Your task to perform on an android device: Clear the shopping cart on amazon. Image 0: 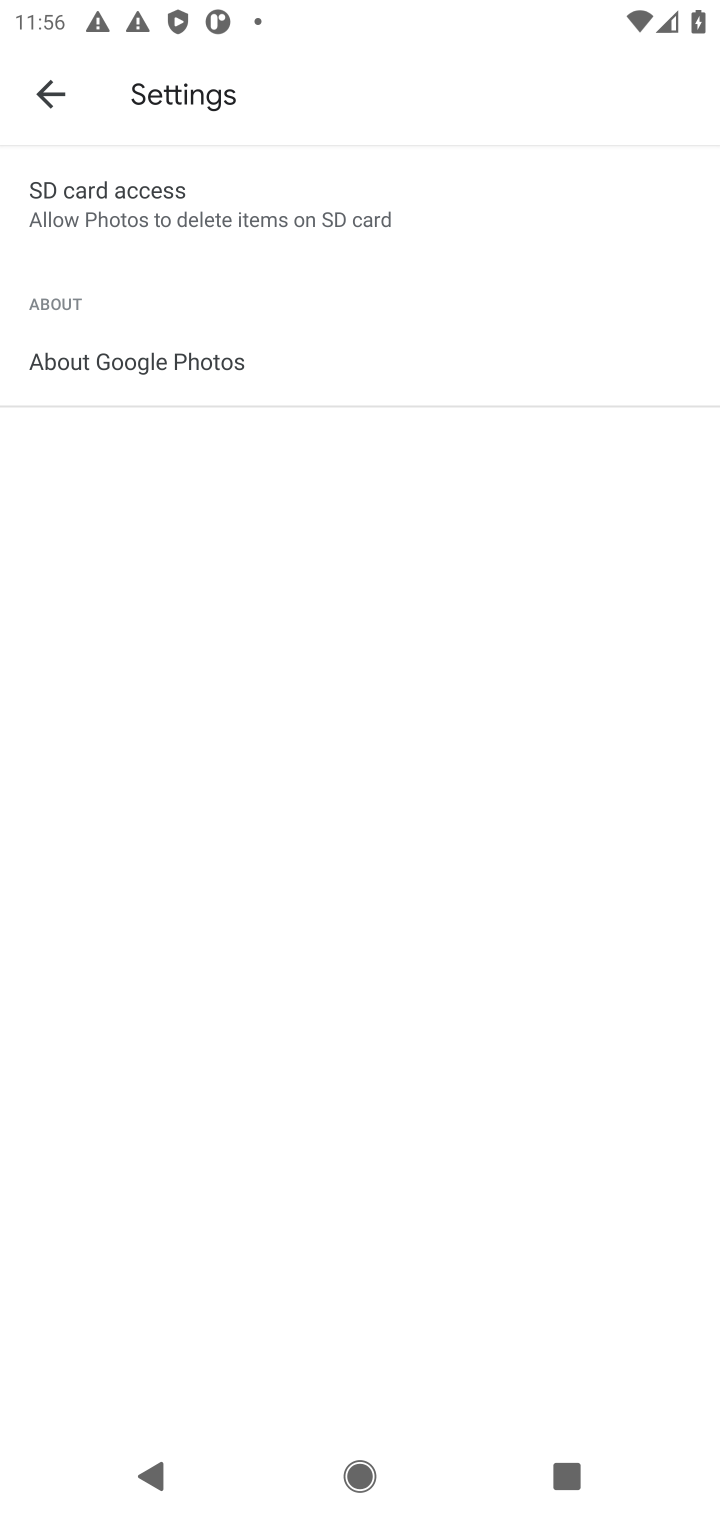
Step 0: press home button
Your task to perform on an android device: Clear the shopping cart on amazon. Image 1: 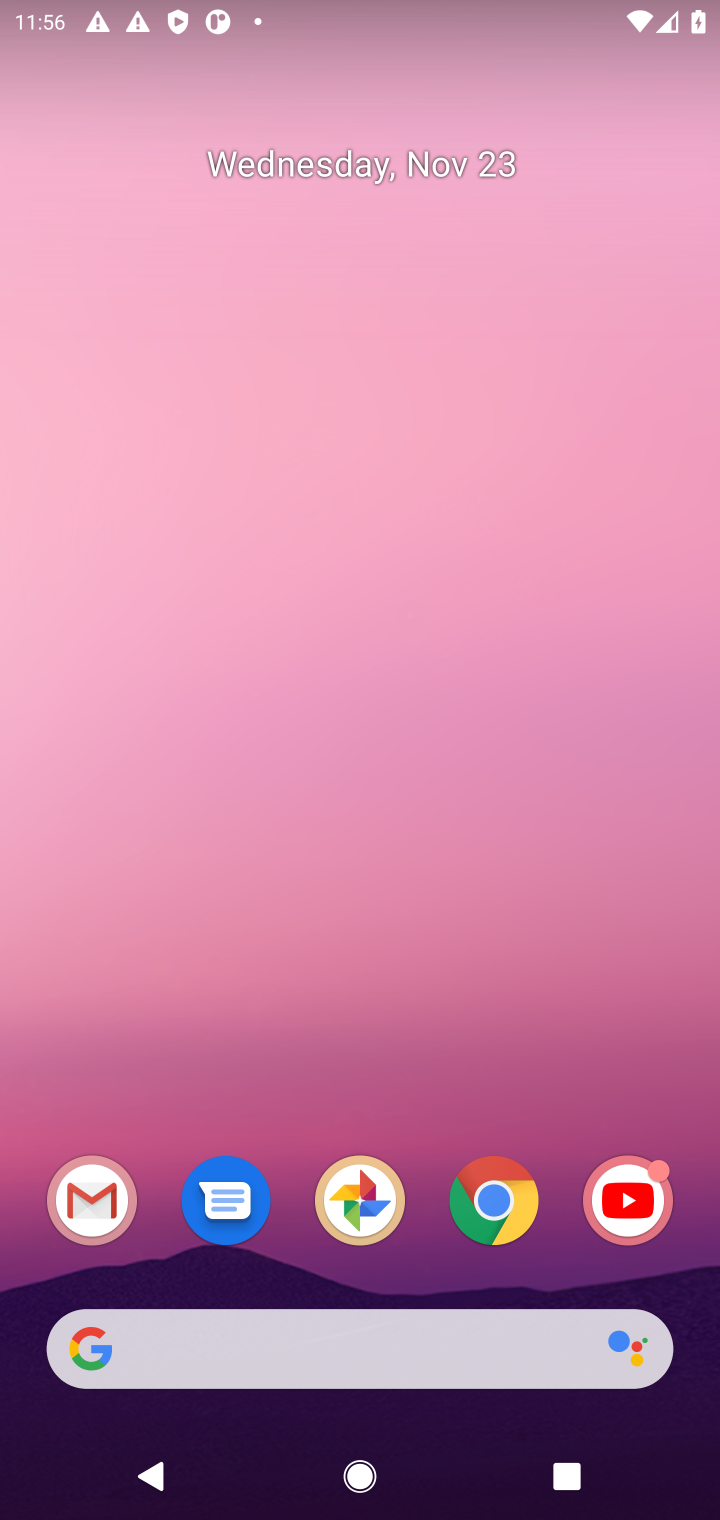
Step 1: click (210, 1365)
Your task to perform on an android device: Clear the shopping cart on amazon. Image 2: 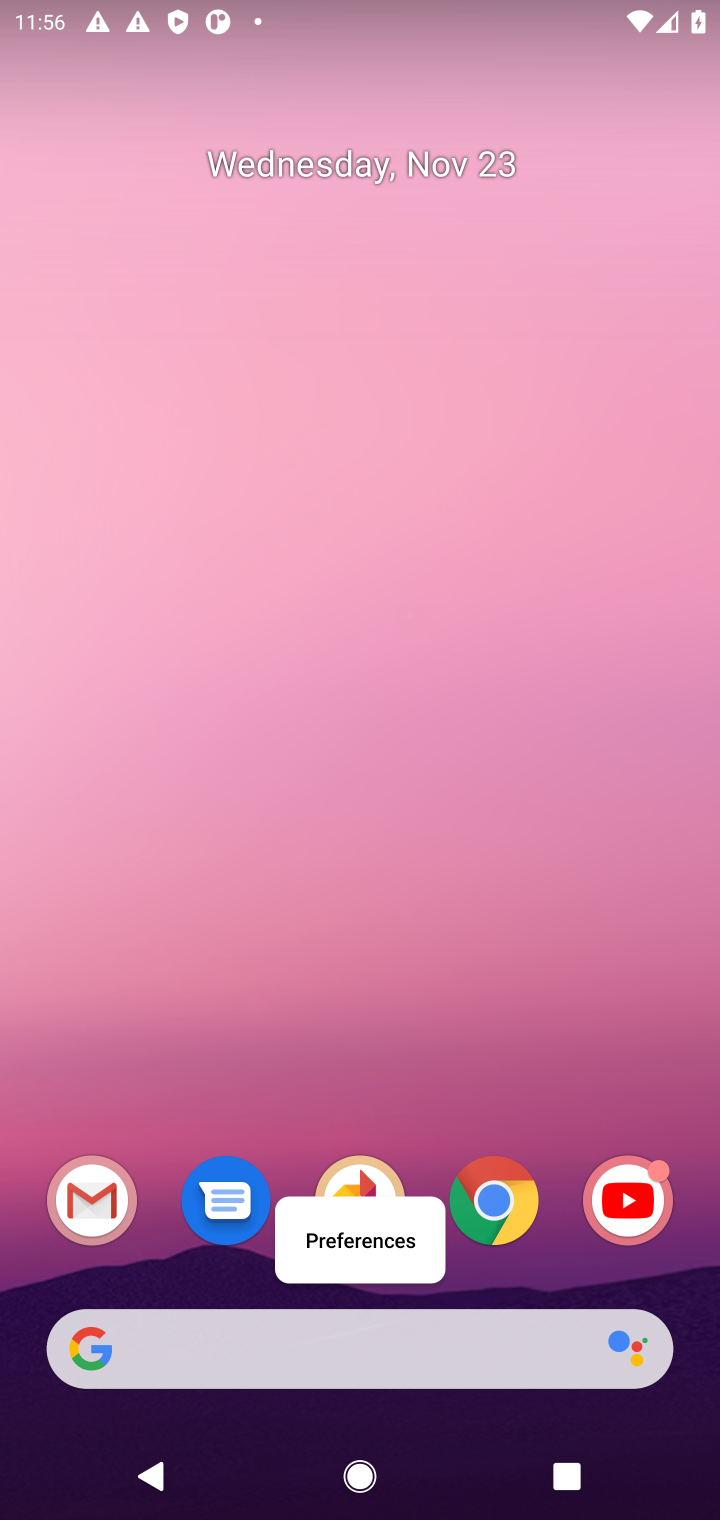
Step 2: click (319, 1322)
Your task to perform on an android device: Clear the shopping cart on amazon. Image 3: 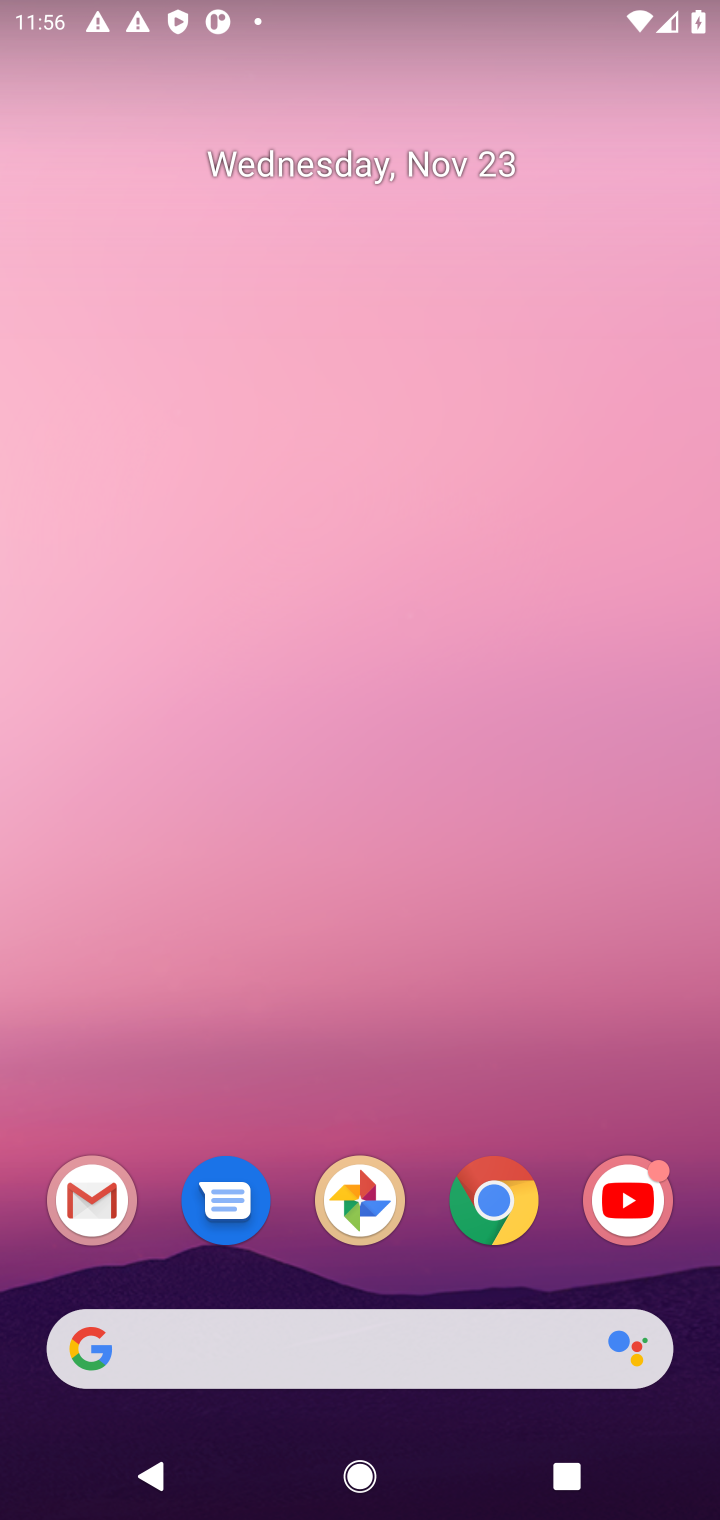
Step 3: click (282, 1335)
Your task to perform on an android device: Clear the shopping cart on amazon. Image 4: 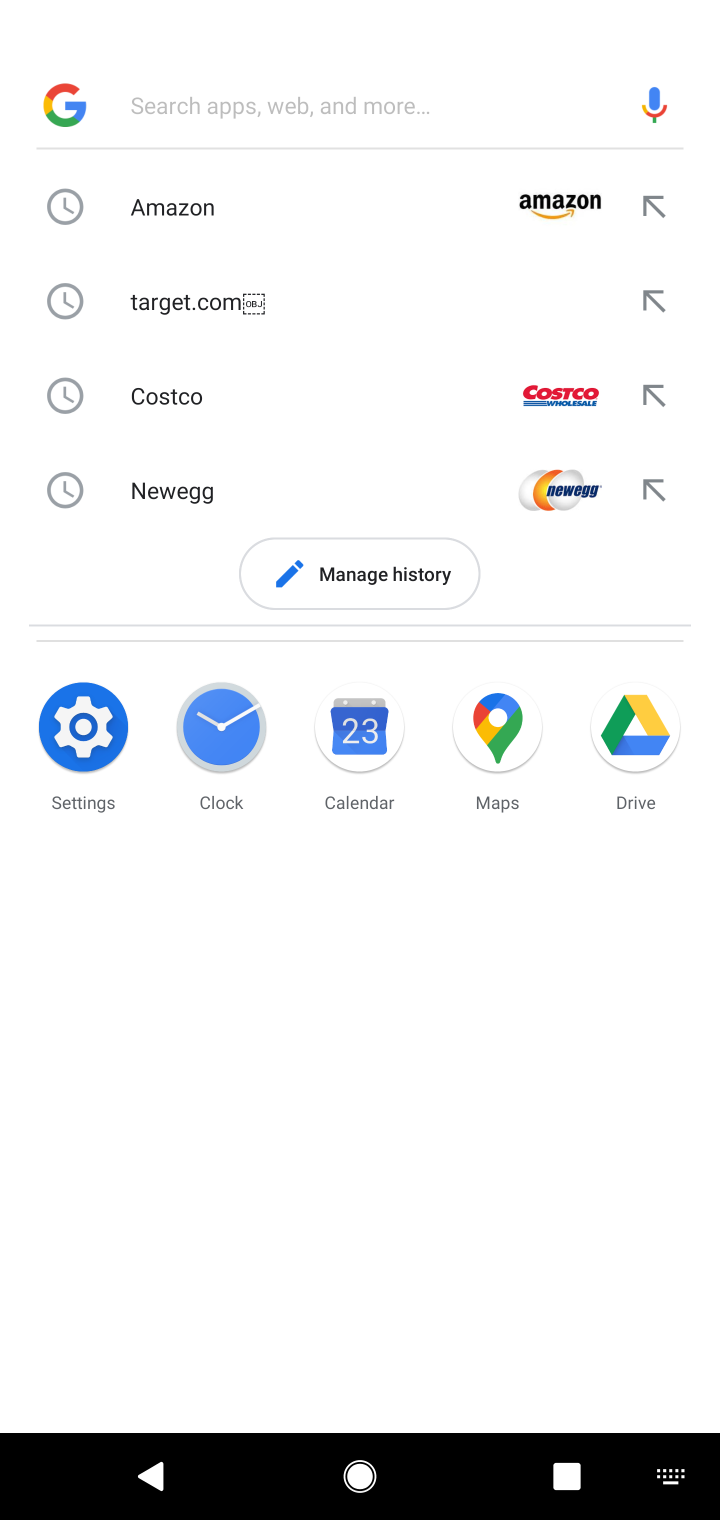
Step 4: click (326, 201)
Your task to perform on an android device: Clear the shopping cart on amazon. Image 5: 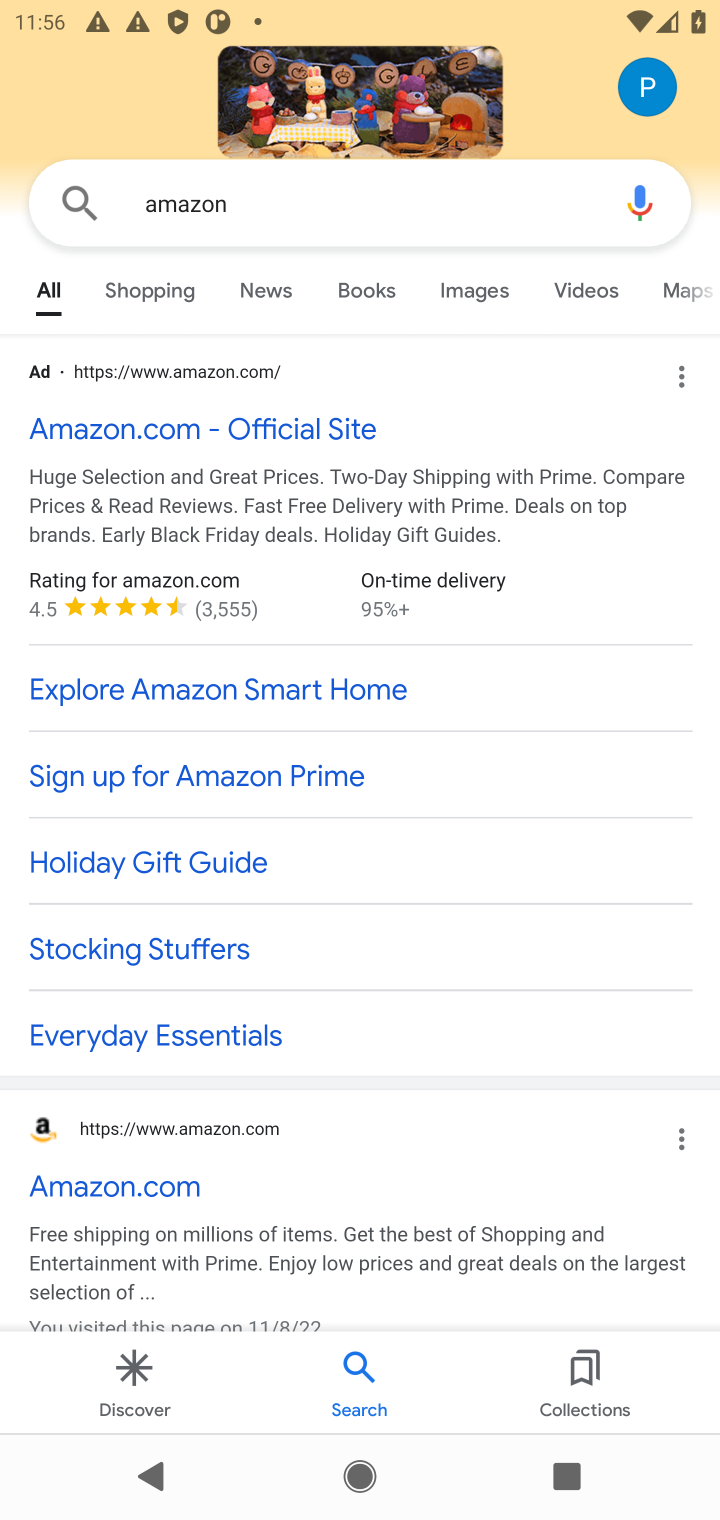
Step 5: click (272, 409)
Your task to perform on an android device: Clear the shopping cart on amazon. Image 6: 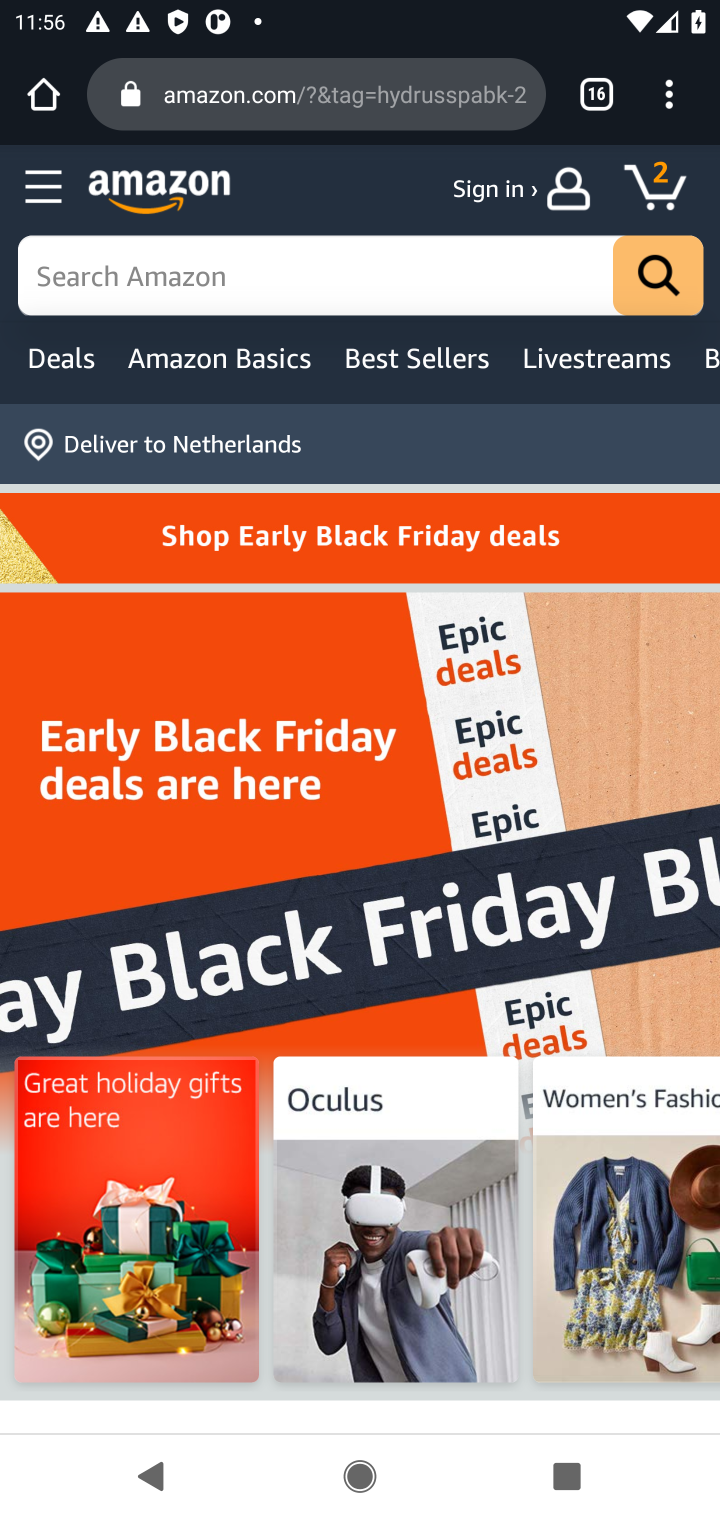
Step 6: click (119, 263)
Your task to perform on an android device: Clear the shopping cart on amazon. Image 7: 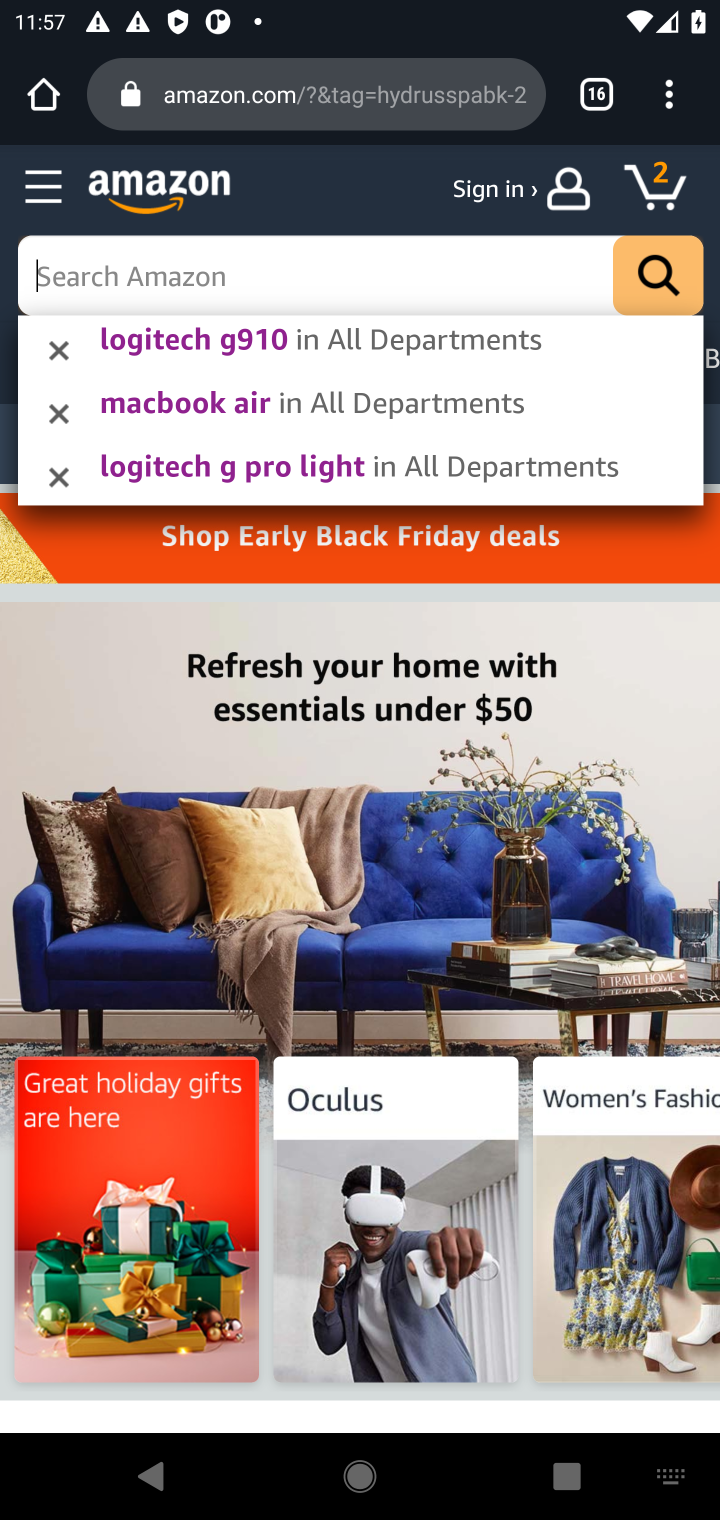
Step 7: click (655, 201)
Your task to perform on an android device: Clear the shopping cart on amazon. Image 8: 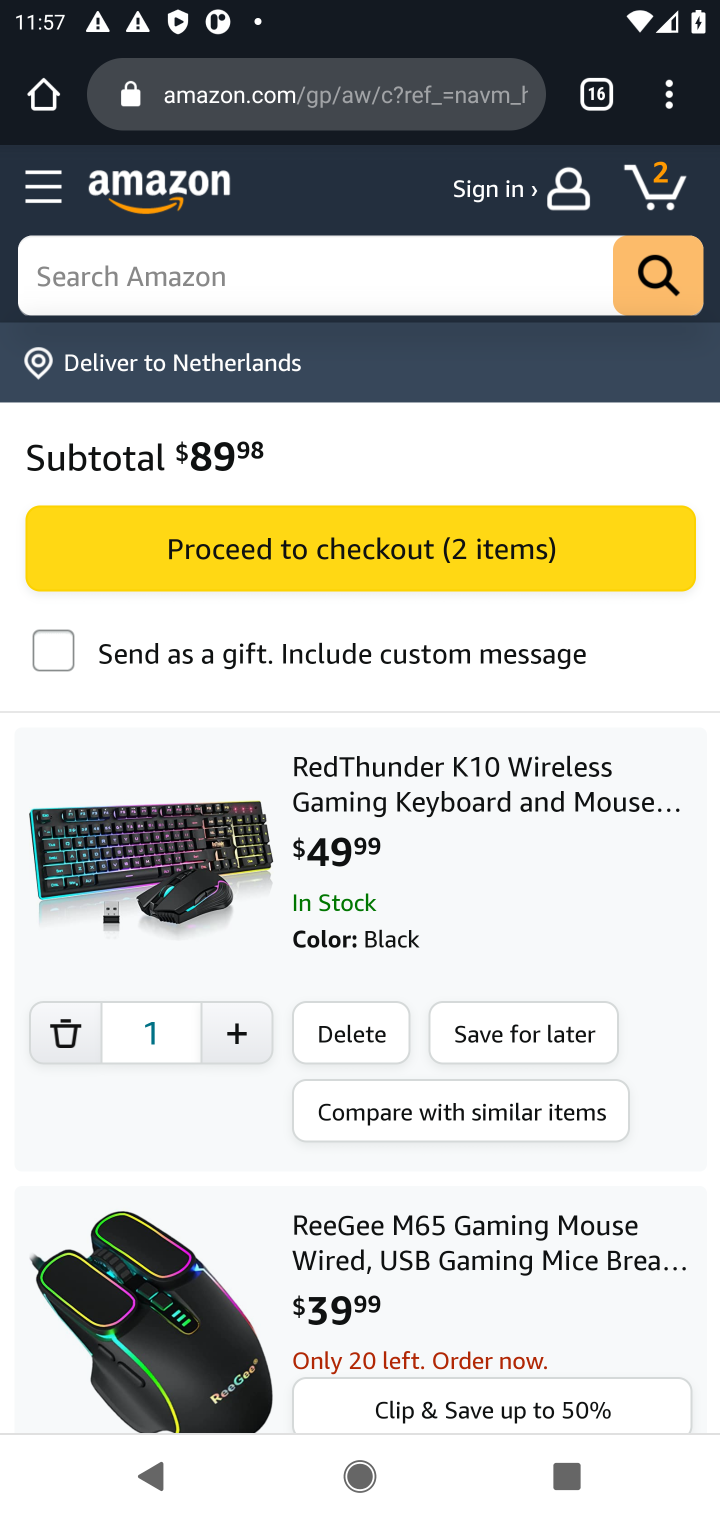
Step 8: click (355, 1022)
Your task to perform on an android device: Clear the shopping cart on amazon. Image 9: 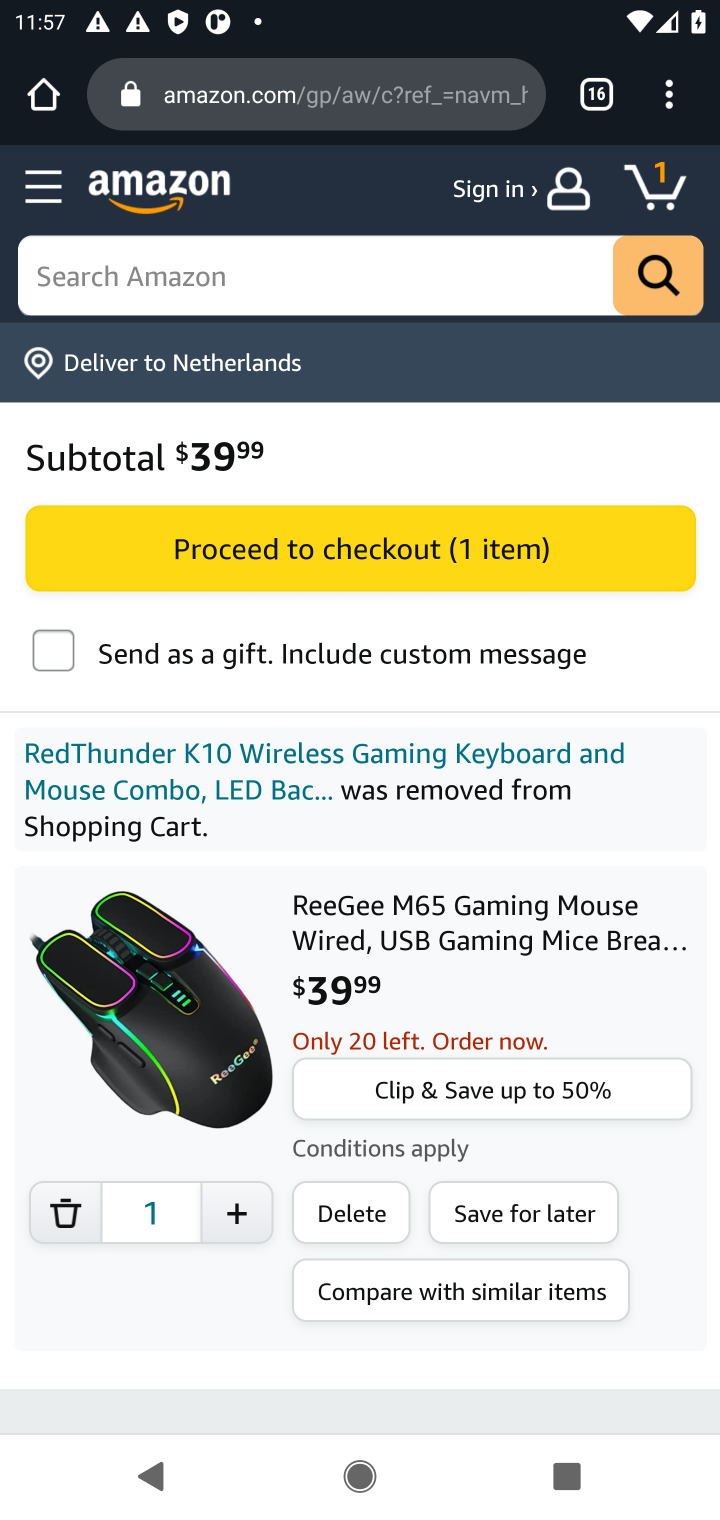
Step 9: click (325, 1193)
Your task to perform on an android device: Clear the shopping cart on amazon. Image 10: 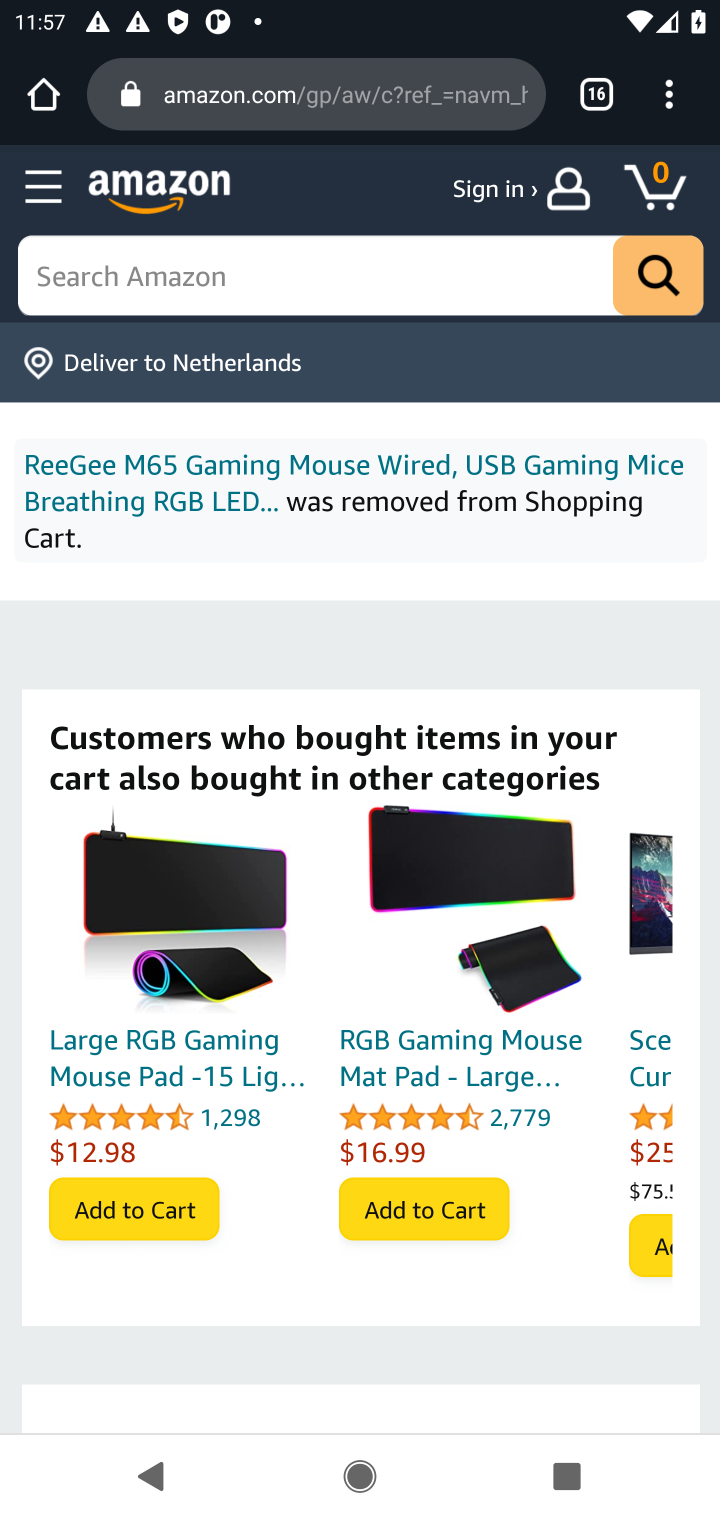
Step 10: task complete